Your task to perform on an android device: turn on the 24-hour format for clock Image 0: 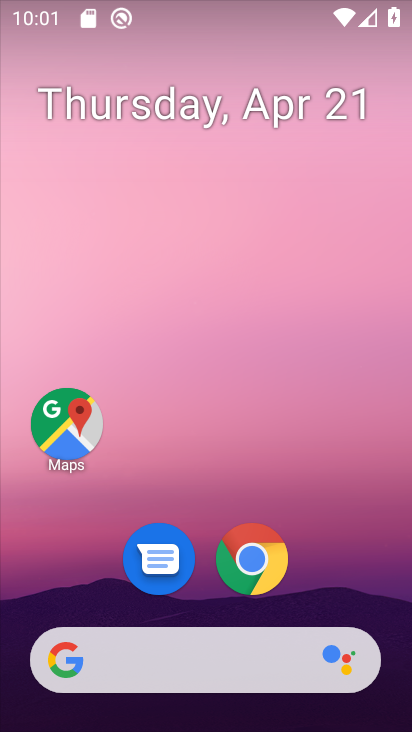
Step 0: drag from (201, 610) to (224, 105)
Your task to perform on an android device: turn on the 24-hour format for clock Image 1: 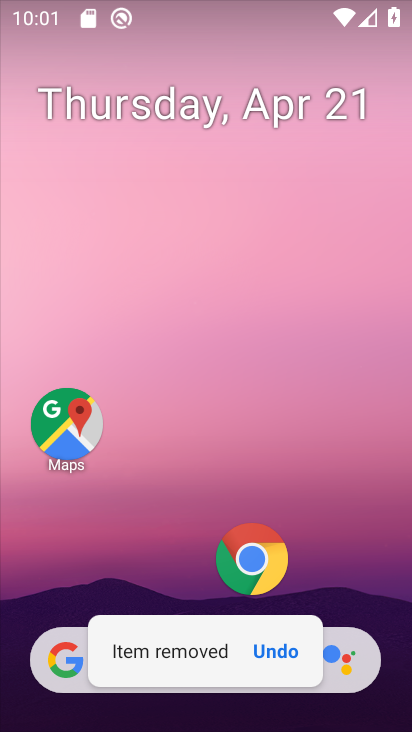
Step 1: drag from (171, 538) to (230, 51)
Your task to perform on an android device: turn on the 24-hour format for clock Image 2: 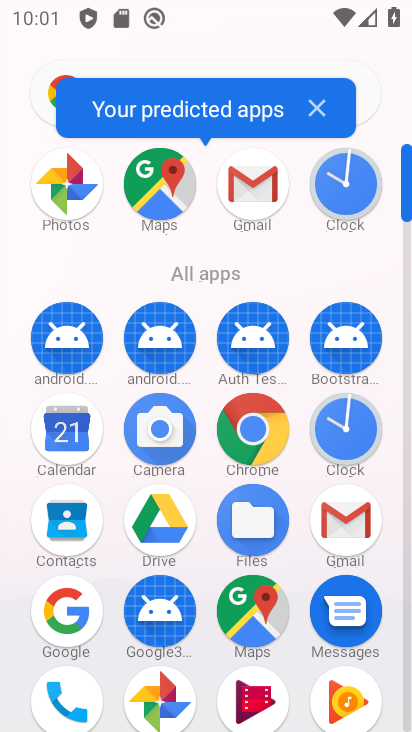
Step 2: click (358, 436)
Your task to perform on an android device: turn on the 24-hour format for clock Image 3: 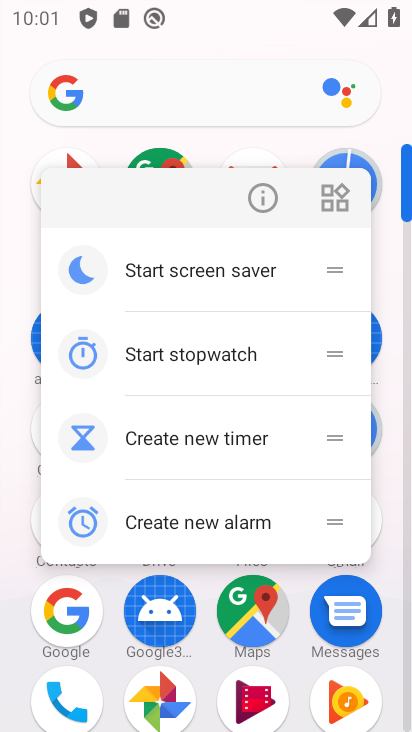
Step 3: click (267, 205)
Your task to perform on an android device: turn on the 24-hour format for clock Image 4: 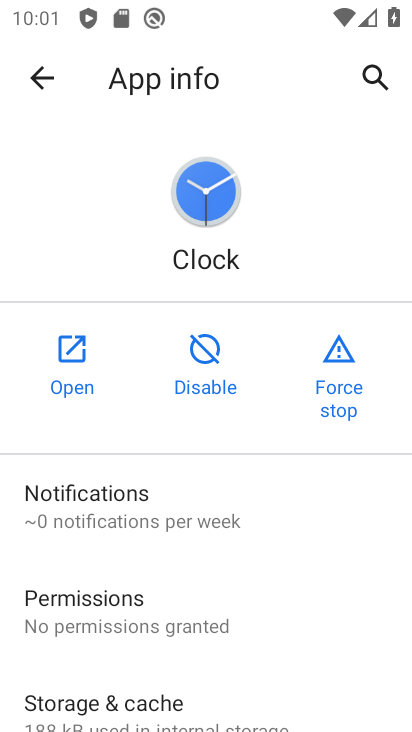
Step 4: click (80, 373)
Your task to perform on an android device: turn on the 24-hour format for clock Image 5: 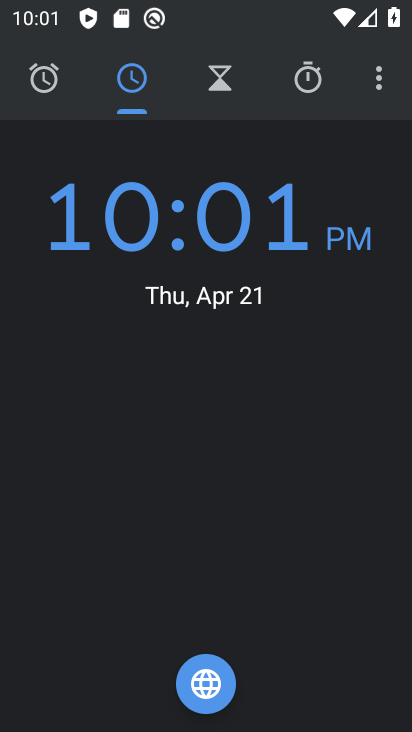
Step 5: click (381, 80)
Your task to perform on an android device: turn on the 24-hour format for clock Image 6: 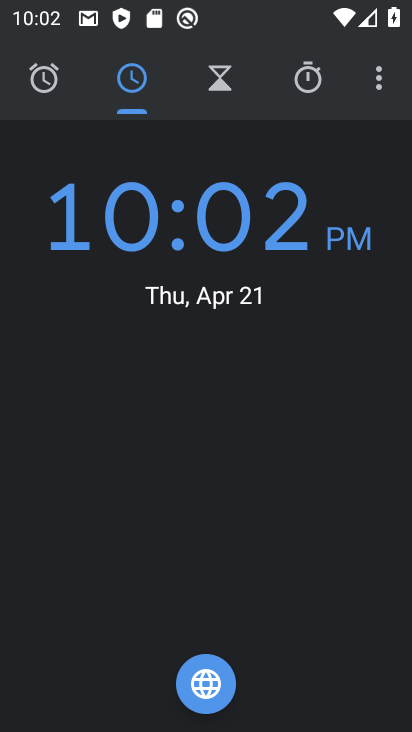
Step 6: click (385, 79)
Your task to perform on an android device: turn on the 24-hour format for clock Image 7: 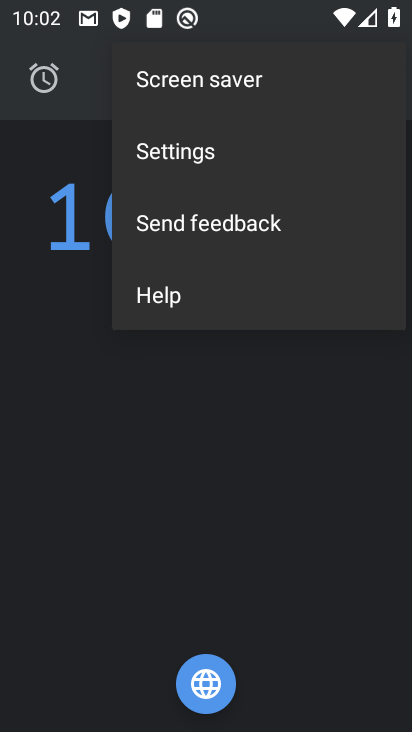
Step 7: click (181, 159)
Your task to perform on an android device: turn on the 24-hour format for clock Image 8: 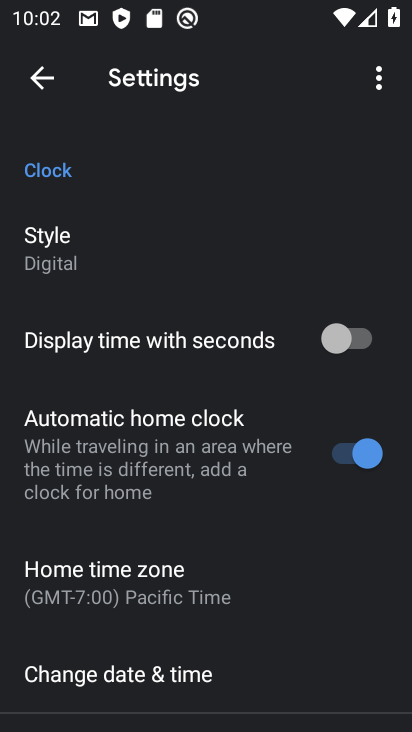
Step 8: drag from (147, 517) to (176, 264)
Your task to perform on an android device: turn on the 24-hour format for clock Image 9: 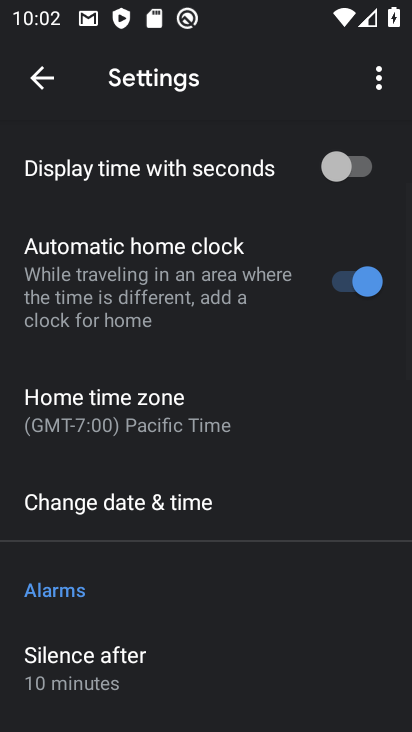
Step 9: click (116, 512)
Your task to perform on an android device: turn on the 24-hour format for clock Image 10: 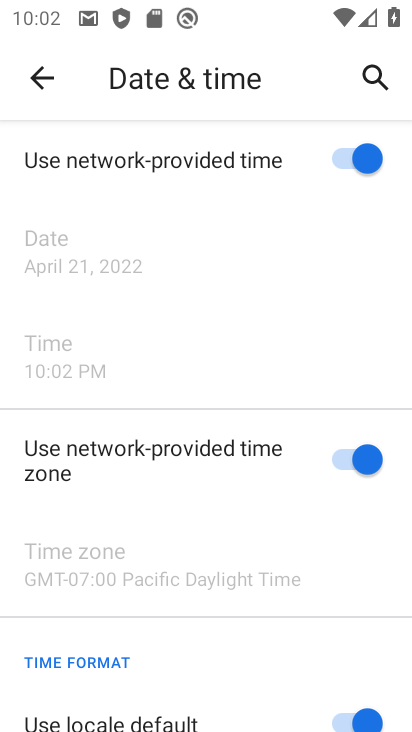
Step 10: drag from (171, 560) to (219, 272)
Your task to perform on an android device: turn on the 24-hour format for clock Image 11: 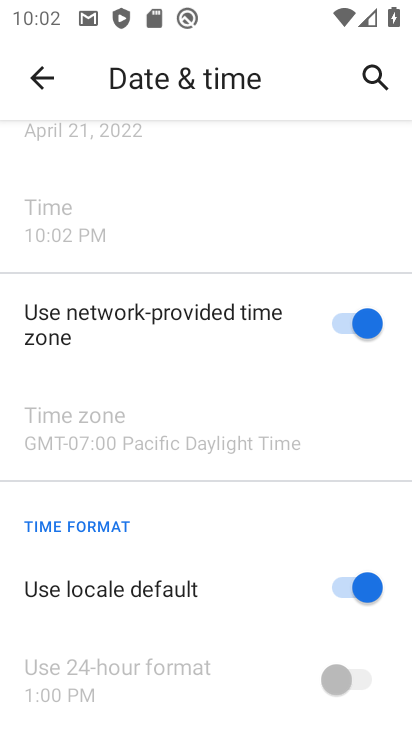
Step 11: click (351, 588)
Your task to perform on an android device: turn on the 24-hour format for clock Image 12: 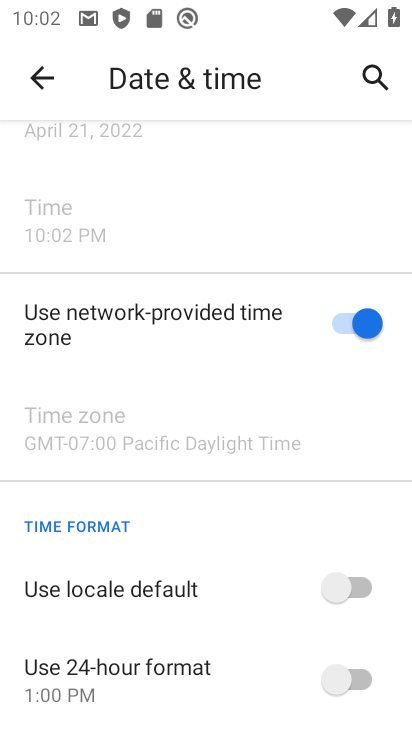
Step 12: click (346, 688)
Your task to perform on an android device: turn on the 24-hour format for clock Image 13: 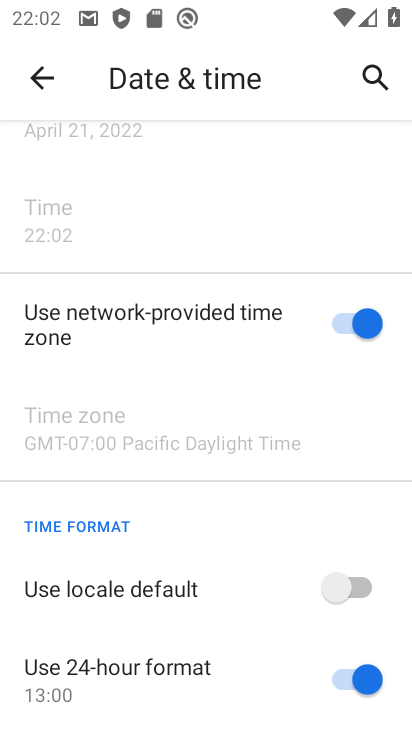
Step 13: task complete